Your task to perform on an android device: change the clock display to show seconds Image 0: 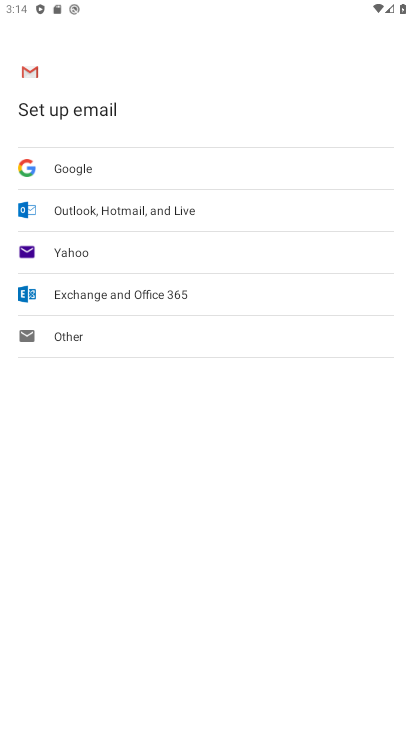
Step 0: press home button
Your task to perform on an android device: change the clock display to show seconds Image 1: 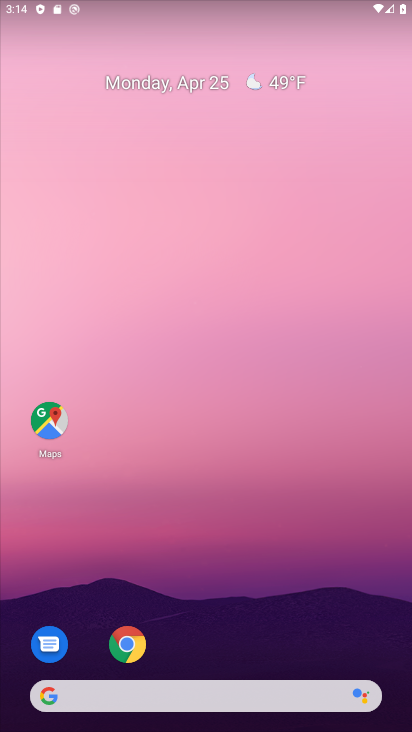
Step 1: drag from (273, 584) to (234, 78)
Your task to perform on an android device: change the clock display to show seconds Image 2: 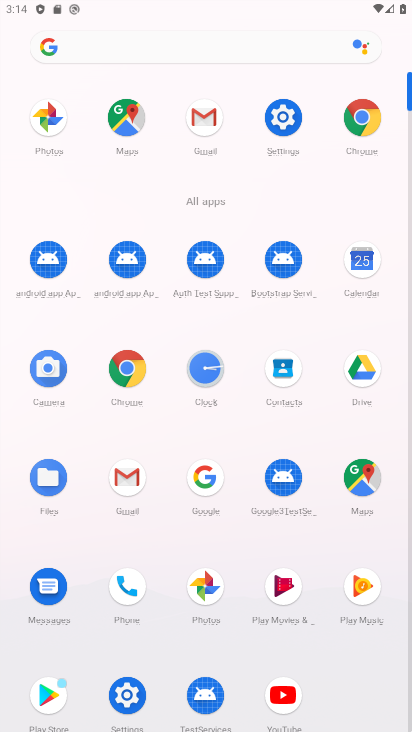
Step 2: click (194, 366)
Your task to perform on an android device: change the clock display to show seconds Image 3: 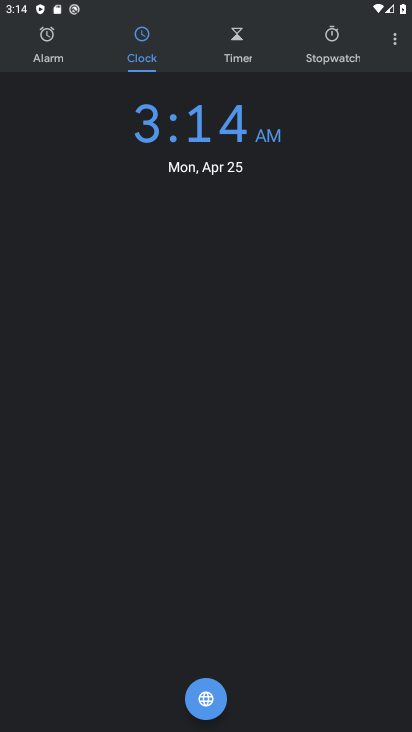
Step 3: click (394, 44)
Your task to perform on an android device: change the clock display to show seconds Image 4: 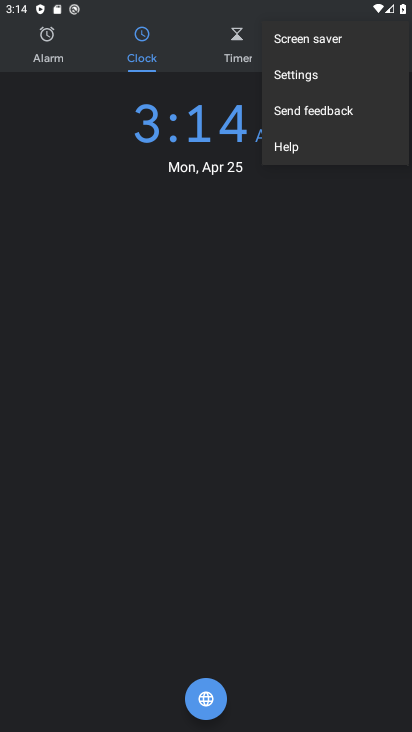
Step 4: click (354, 84)
Your task to perform on an android device: change the clock display to show seconds Image 5: 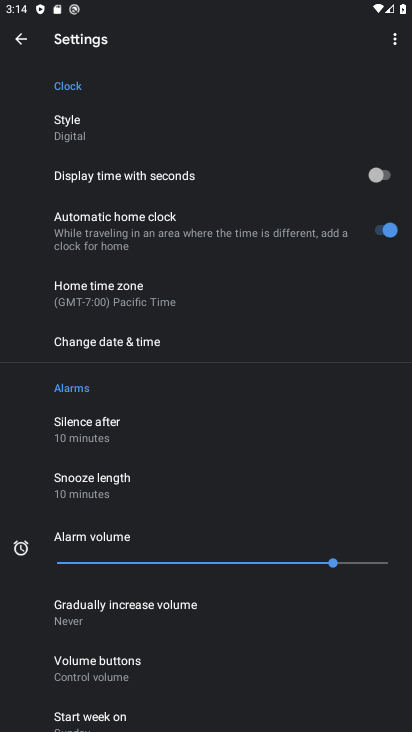
Step 5: click (243, 190)
Your task to perform on an android device: change the clock display to show seconds Image 6: 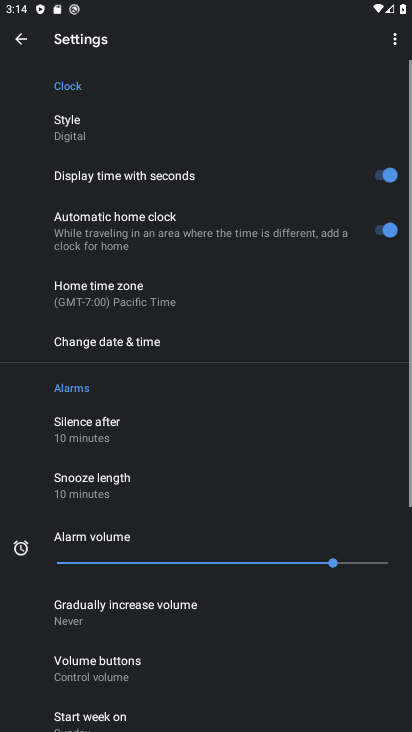
Step 6: task complete